Your task to perform on an android device: toggle wifi Image 0: 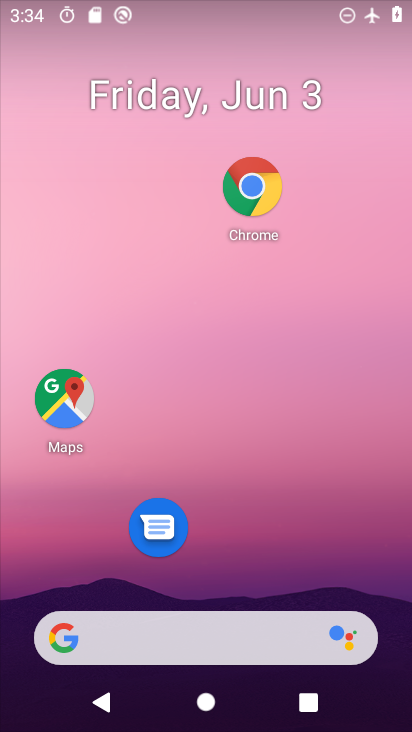
Step 0: drag from (257, 655) to (261, 284)
Your task to perform on an android device: toggle wifi Image 1: 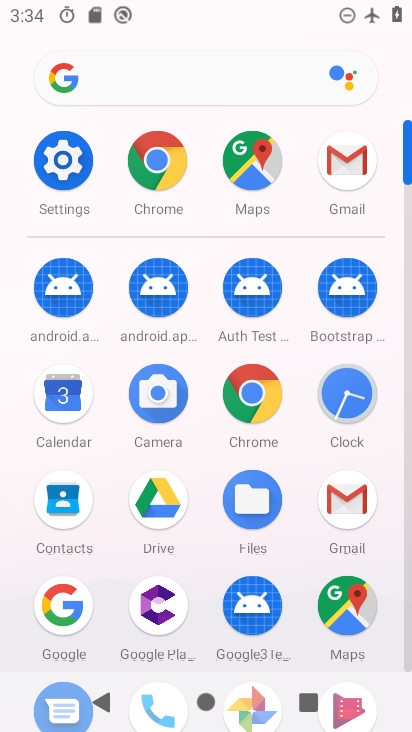
Step 1: click (60, 146)
Your task to perform on an android device: toggle wifi Image 2: 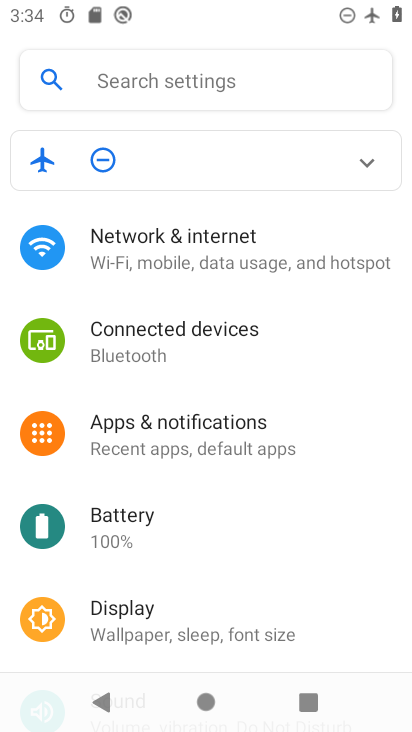
Step 2: click (214, 271)
Your task to perform on an android device: toggle wifi Image 3: 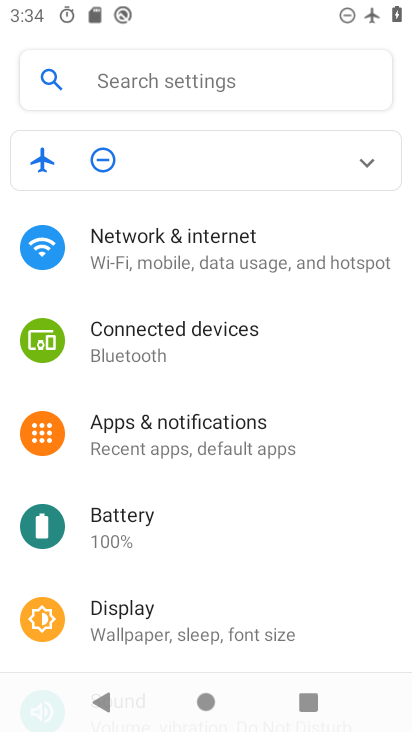
Step 3: click (196, 262)
Your task to perform on an android device: toggle wifi Image 4: 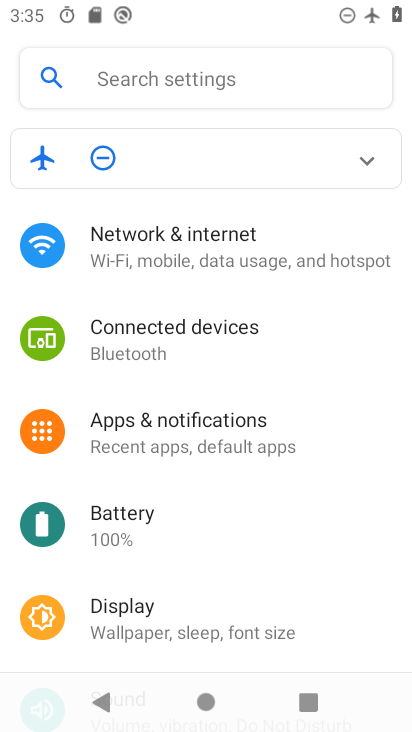
Step 4: click (126, 243)
Your task to perform on an android device: toggle wifi Image 5: 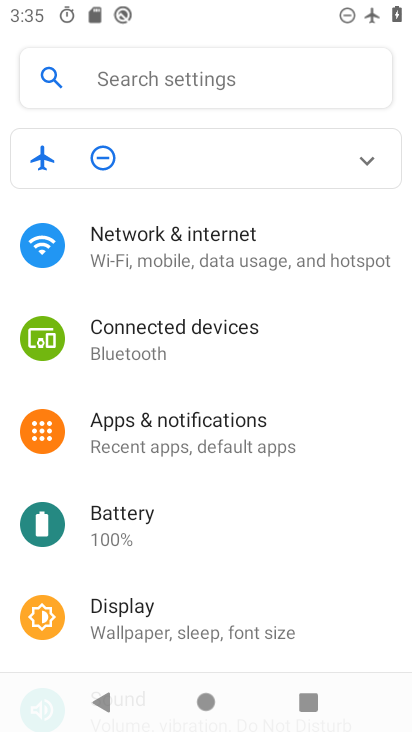
Step 5: click (130, 262)
Your task to perform on an android device: toggle wifi Image 6: 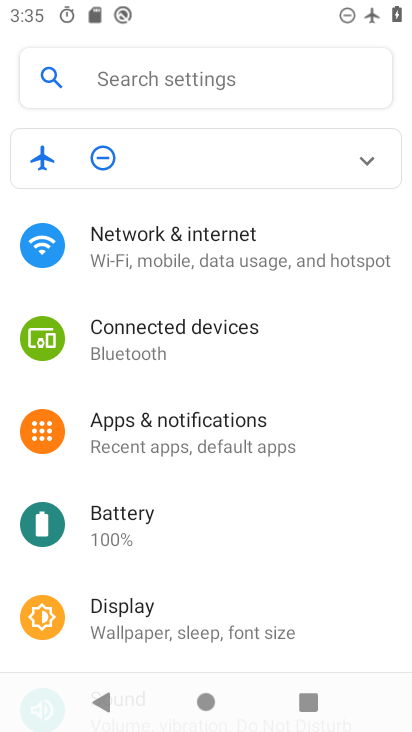
Step 6: click (144, 248)
Your task to perform on an android device: toggle wifi Image 7: 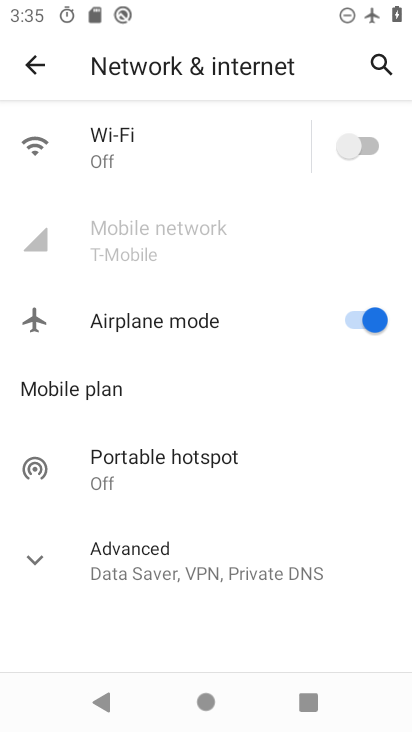
Step 7: click (145, 247)
Your task to perform on an android device: toggle wifi Image 8: 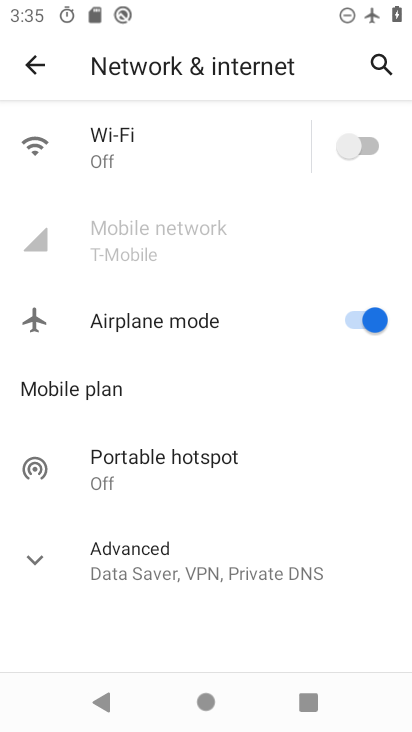
Step 8: drag from (326, 127) to (356, 152)
Your task to perform on an android device: toggle wifi Image 9: 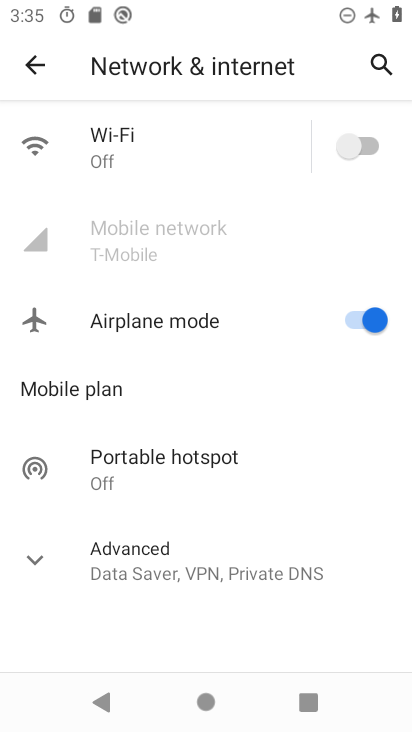
Step 9: click (372, 137)
Your task to perform on an android device: toggle wifi Image 10: 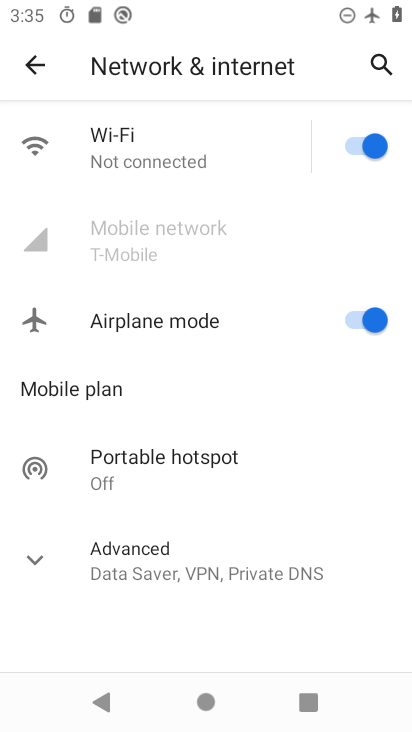
Step 10: task complete